Your task to perform on an android device: turn on the 24-hour format for clock Image 0: 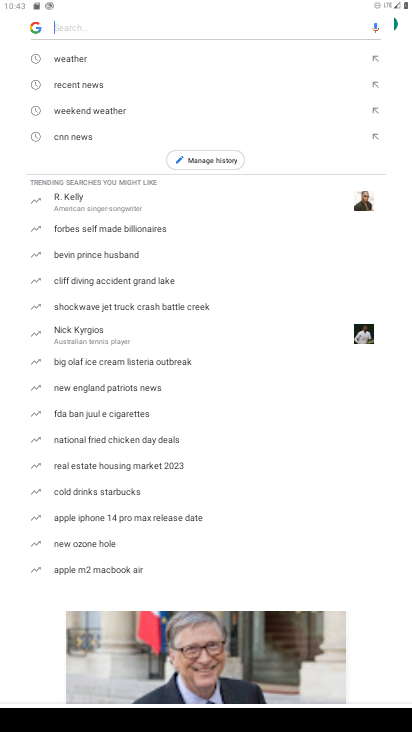
Step 0: press home button
Your task to perform on an android device: turn on the 24-hour format for clock Image 1: 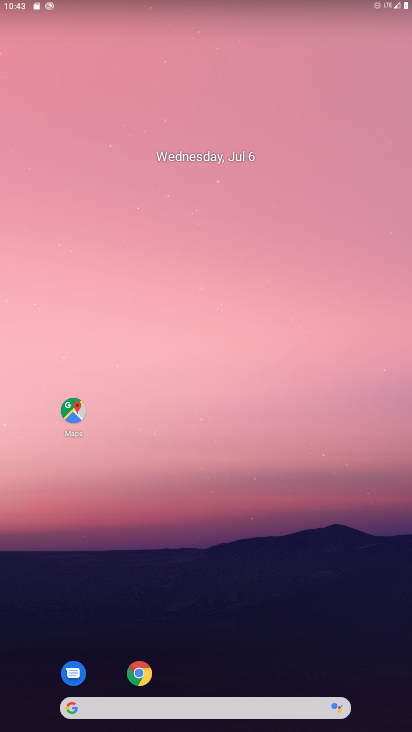
Step 1: drag from (203, 678) to (234, 225)
Your task to perform on an android device: turn on the 24-hour format for clock Image 2: 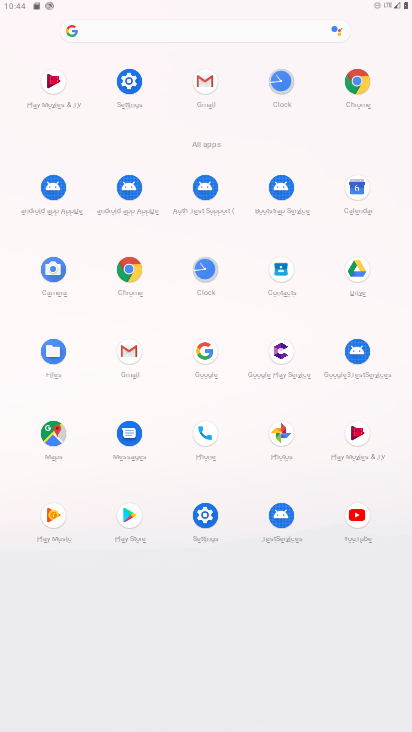
Step 2: click (201, 260)
Your task to perform on an android device: turn on the 24-hour format for clock Image 3: 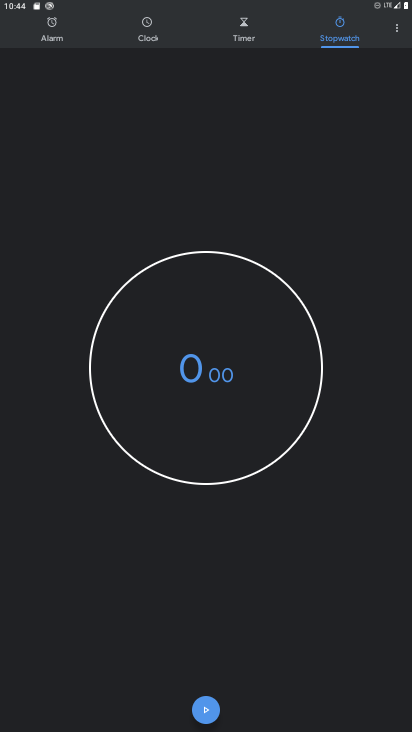
Step 3: click (403, 29)
Your task to perform on an android device: turn on the 24-hour format for clock Image 4: 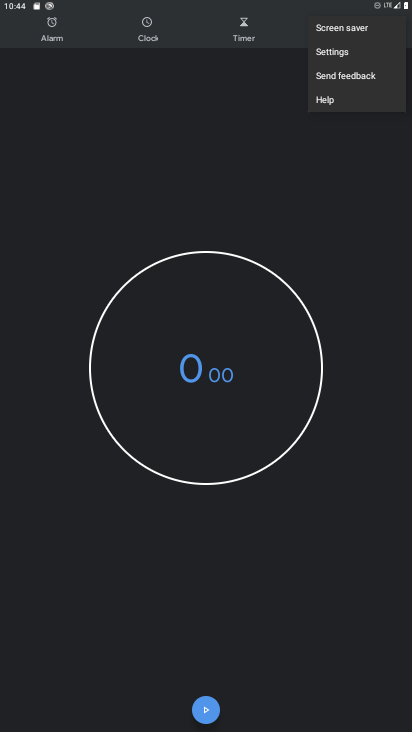
Step 4: click (348, 53)
Your task to perform on an android device: turn on the 24-hour format for clock Image 5: 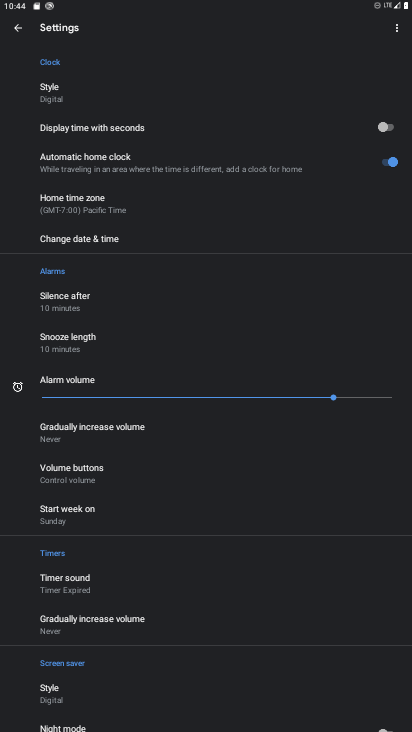
Step 5: click (87, 236)
Your task to perform on an android device: turn on the 24-hour format for clock Image 6: 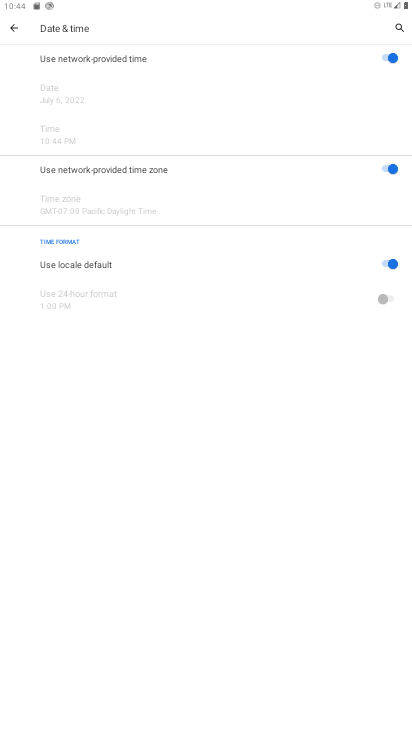
Step 6: click (388, 267)
Your task to perform on an android device: turn on the 24-hour format for clock Image 7: 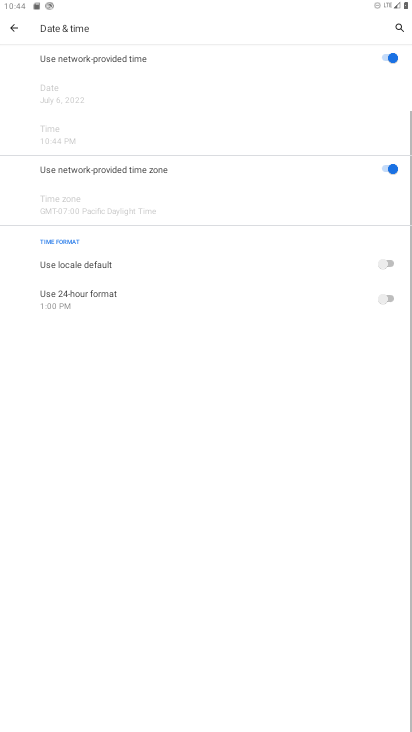
Step 7: click (389, 297)
Your task to perform on an android device: turn on the 24-hour format for clock Image 8: 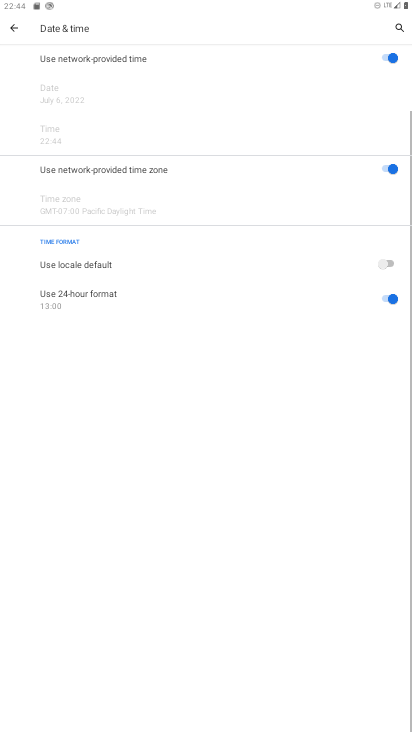
Step 8: task complete